Your task to perform on an android device: check out phone information Image 0: 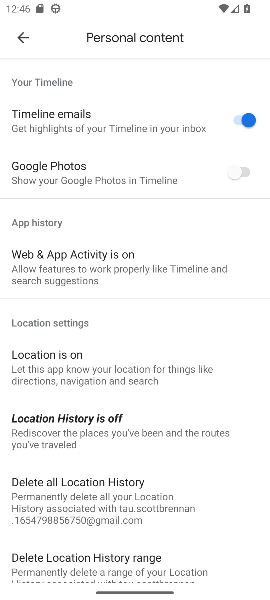
Step 0: press home button
Your task to perform on an android device: check out phone information Image 1: 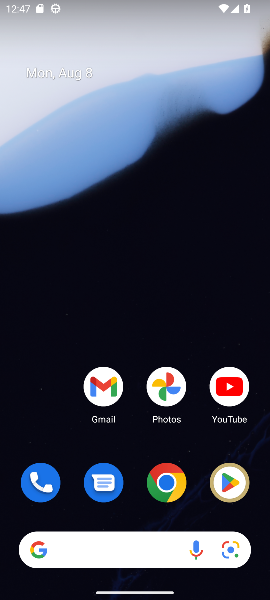
Step 1: drag from (131, 537) to (133, 110)
Your task to perform on an android device: check out phone information Image 2: 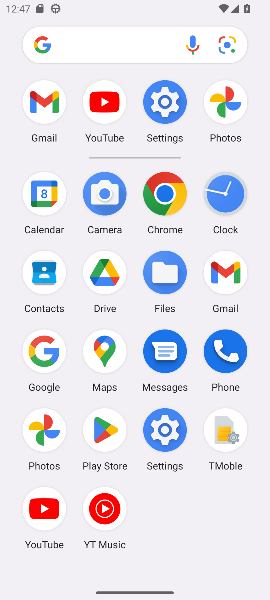
Step 2: click (166, 100)
Your task to perform on an android device: check out phone information Image 3: 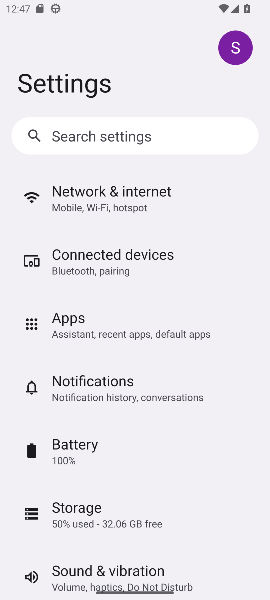
Step 3: drag from (221, 508) to (217, 147)
Your task to perform on an android device: check out phone information Image 4: 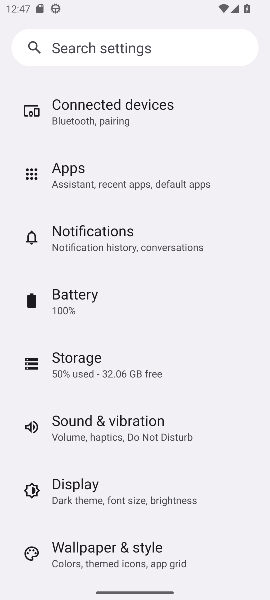
Step 4: drag from (209, 560) to (266, 418)
Your task to perform on an android device: check out phone information Image 5: 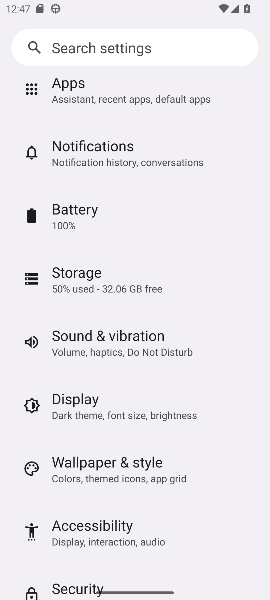
Step 5: drag from (227, 559) to (266, 348)
Your task to perform on an android device: check out phone information Image 6: 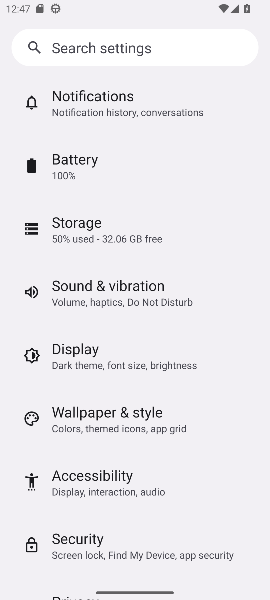
Step 6: drag from (204, 484) to (211, 17)
Your task to perform on an android device: check out phone information Image 7: 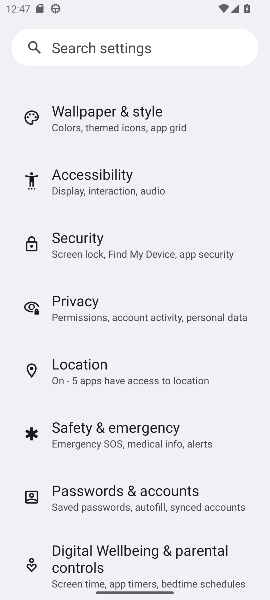
Step 7: drag from (233, 450) to (206, 143)
Your task to perform on an android device: check out phone information Image 8: 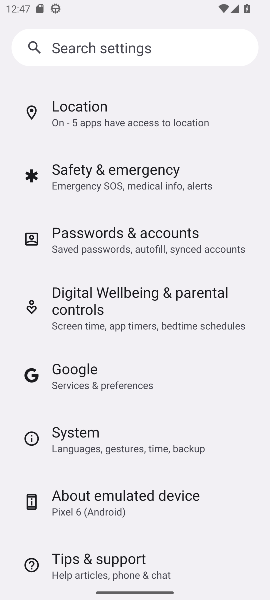
Step 8: click (155, 522)
Your task to perform on an android device: check out phone information Image 9: 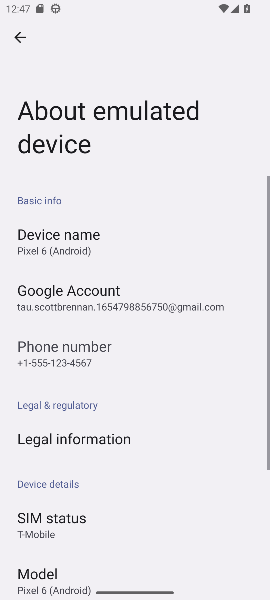
Step 9: task complete